Your task to perform on an android device: visit the assistant section in the google photos Image 0: 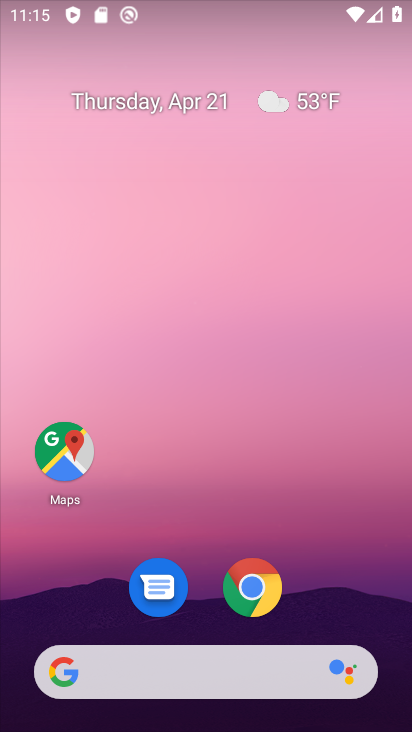
Step 0: drag from (213, 590) to (276, 78)
Your task to perform on an android device: visit the assistant section in the google photos Image 1: 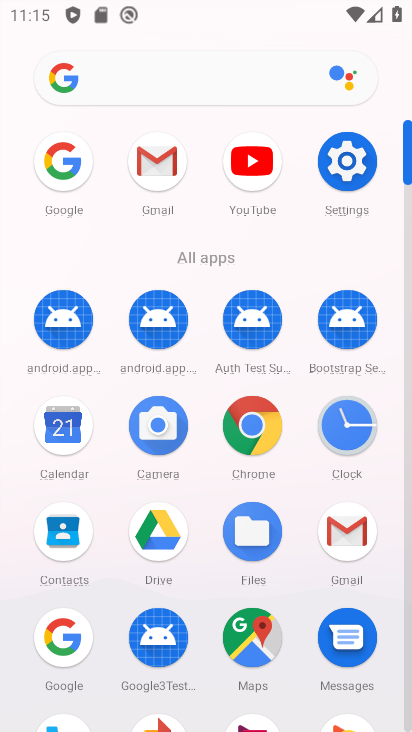
Step 1: drag from (233, 462) to (287, 84)
Your task to perform on an android device: visit the assistant section in the google photos Image 2: 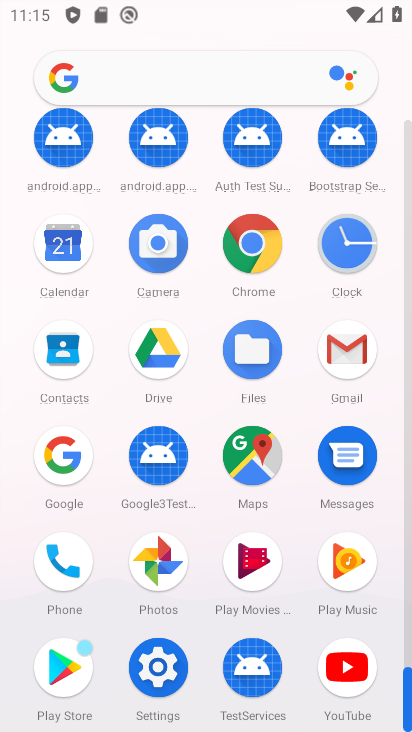
Step 2: click (159, 558)
Your task to perform on an android device: visit the assistant section in the google photos Image 3: 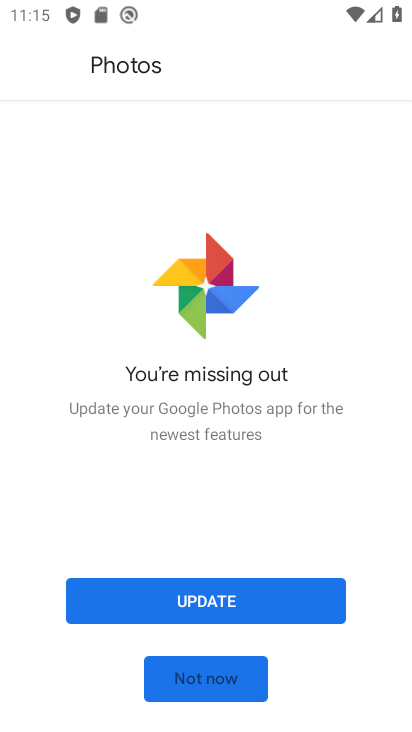
Step 3: click (228, 673)
Your task to perform on an android device: visit the assistant section in the google photos Image 4: 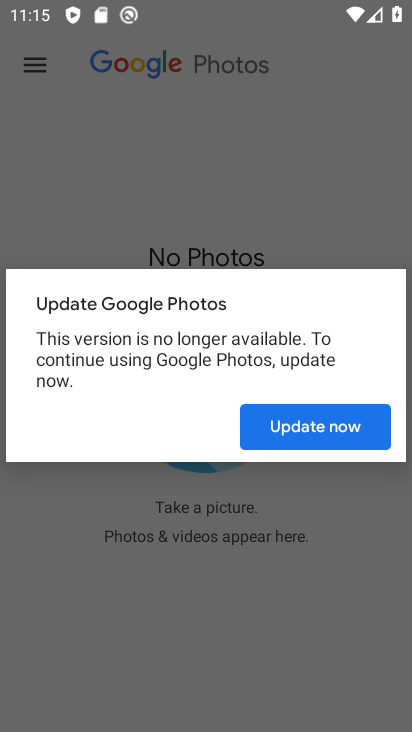
Step 4: click (298, 432)
Your task to perform on an android device: visit the assistant section in the google photos Image 5: 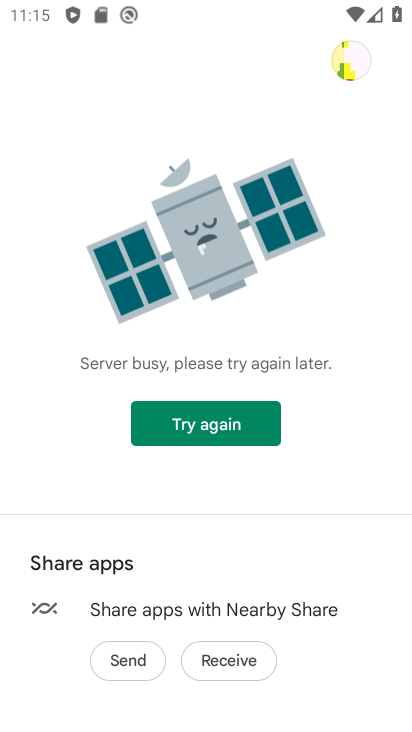
Step 5: press back button
Your task to perform on an android device: visit the assistant section in the google photos Image 6: 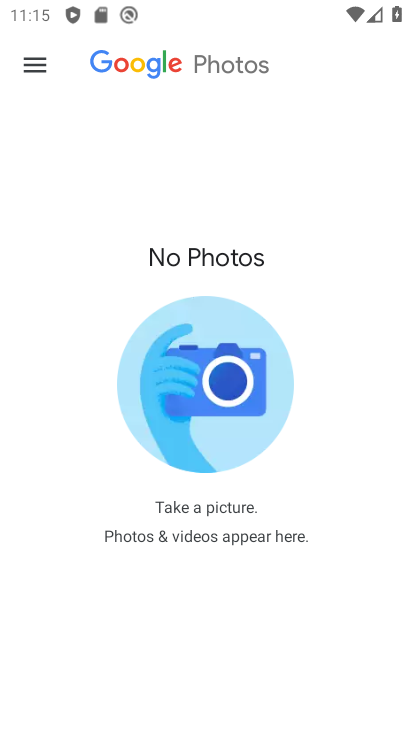
Step 6: click (30, 54)
Your task to perform on an android device: visit the assistant section in the google photos Image 7: 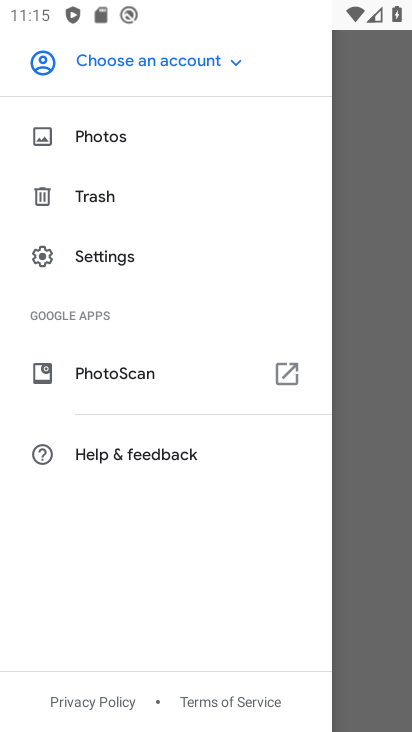
Step 7: click (156, 137)
Your task to perform on an android device: visit the assistant section in the google photos Image 8: 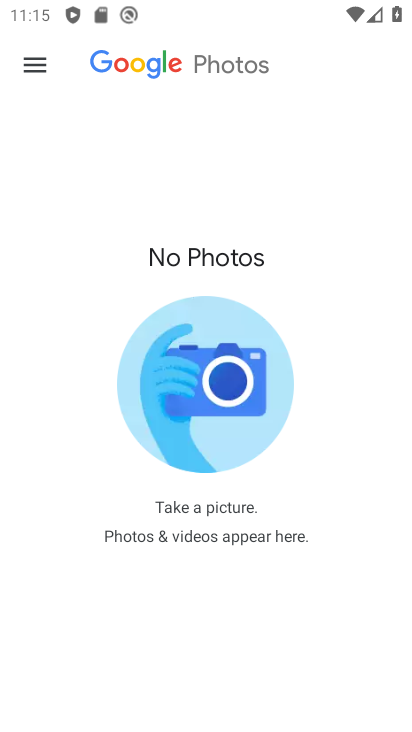
Step 8: click (102, 653)
Your task to perform on an android device: visit the assistant section in the google photos Image 9: 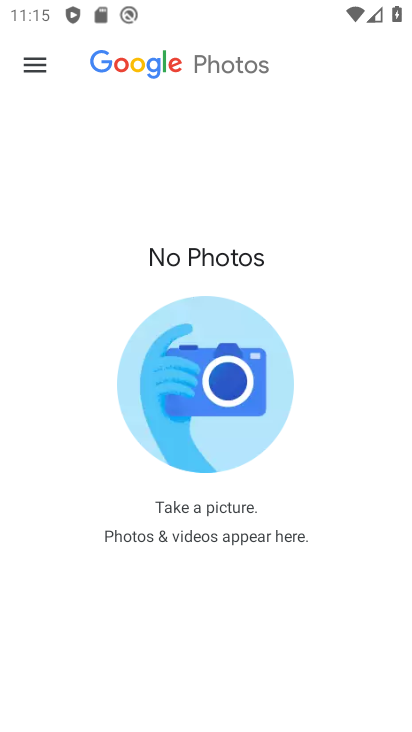
Step 9: click (186, 422)
Your task to perform on an android device: visit the assistant section in the google photos Image 10: 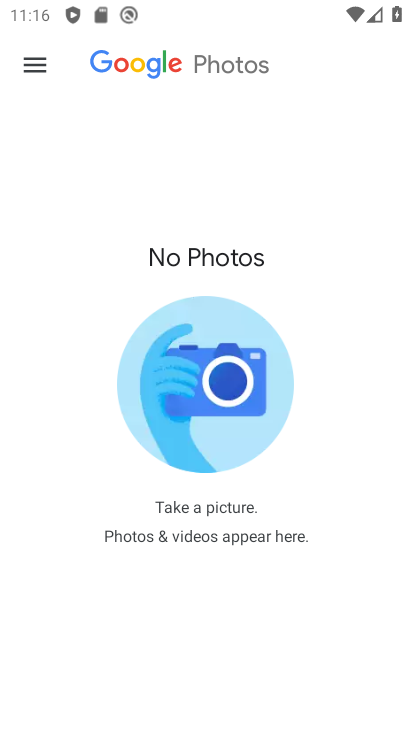
Step 10: press back button
Your task to perform on an android device: visit the assistant section in the google photos Image 11: 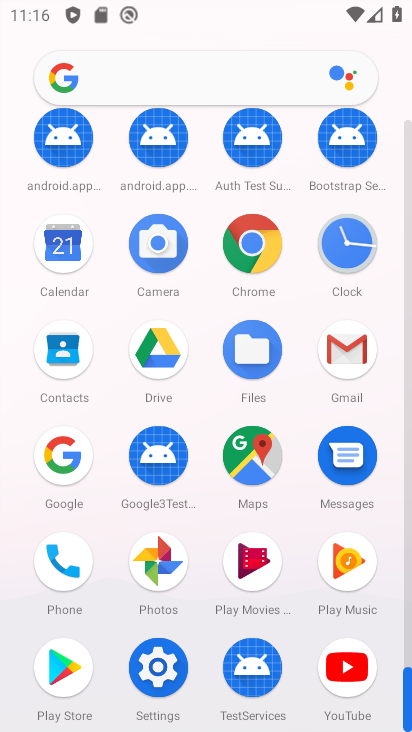
Step 11: click (151, 557)
Your task to perform on an android device: visit the assistant section in the google photos Image 12: 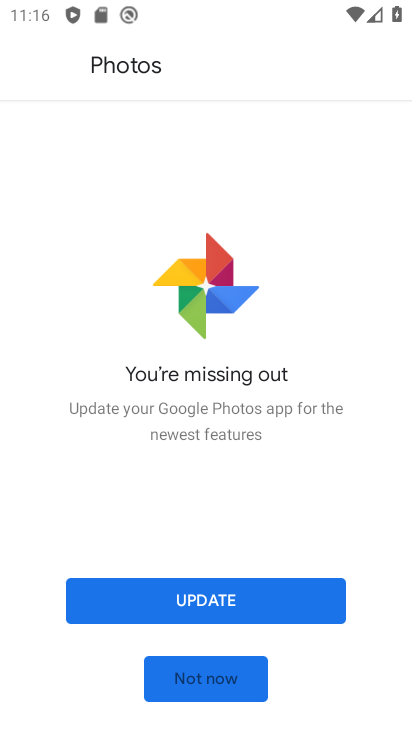
Step 12: click (234, 685)
Your task to perform on an android device: visit the assistant section in the google photos Image 13: 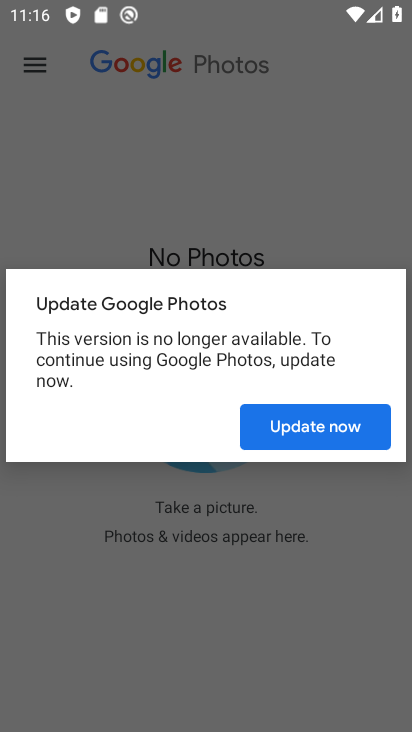
Step 13: click (320, 426)
Your task to perform on an android device: visit the assistant section in the google photos Image 14: 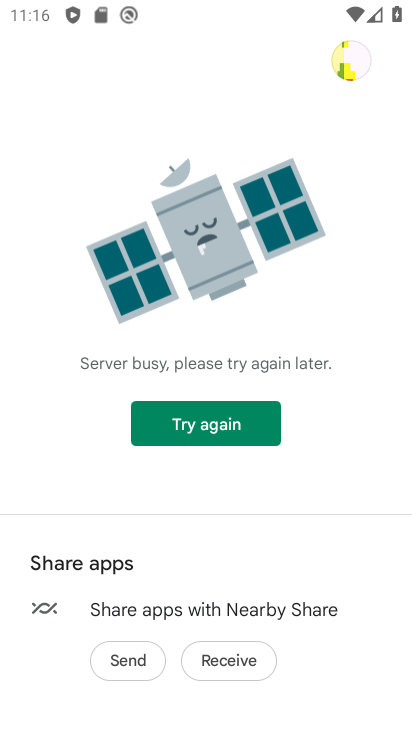
Step 14: click (190, 441)
Your task to perform on an android device: visit the assistant section in the google photos Image 15: 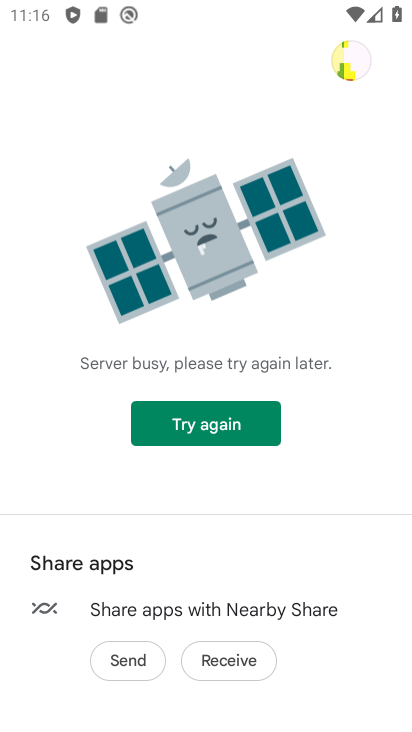
Step 15: click (201, 411)
Your task to perform on an android device: visit the assistant section in the google photos Image 16: 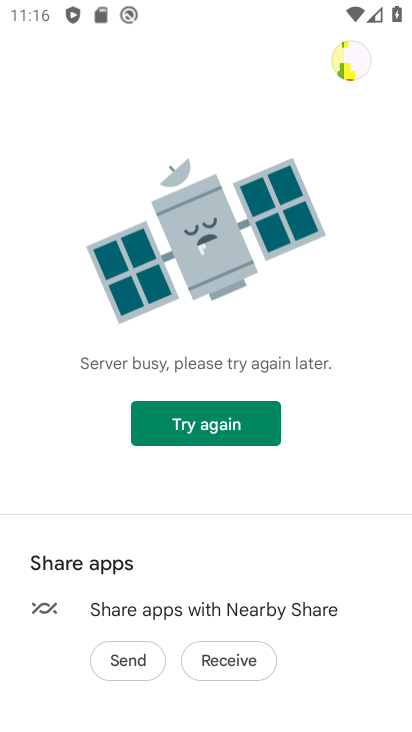
Step 16: click (216, 435)
Your task to perform on an android device: visit the assistant section in the google photos Image 17: 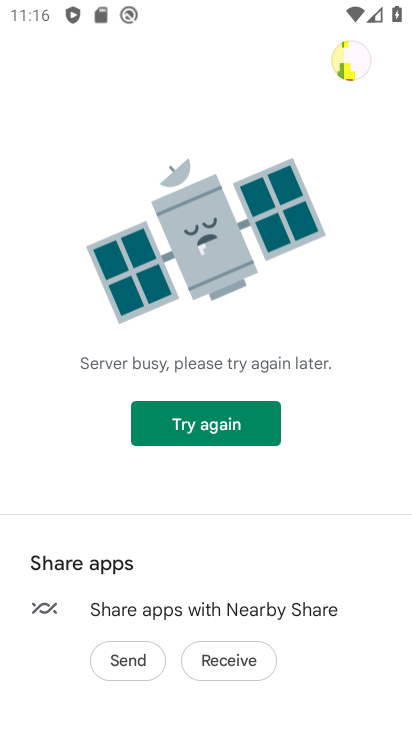
Step 17: click (222, 417)
Your task to perform on an android device: visit the assistant section in the google photos Image 18: 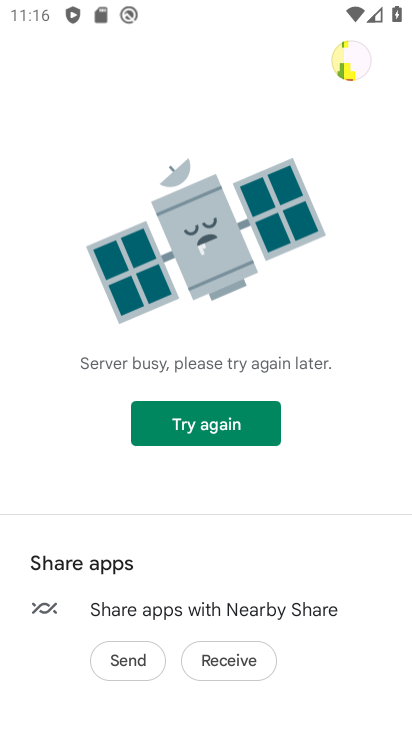
Step 18: task complete